Your task to perform on an android device: change the clock display to show seconds Image 0: 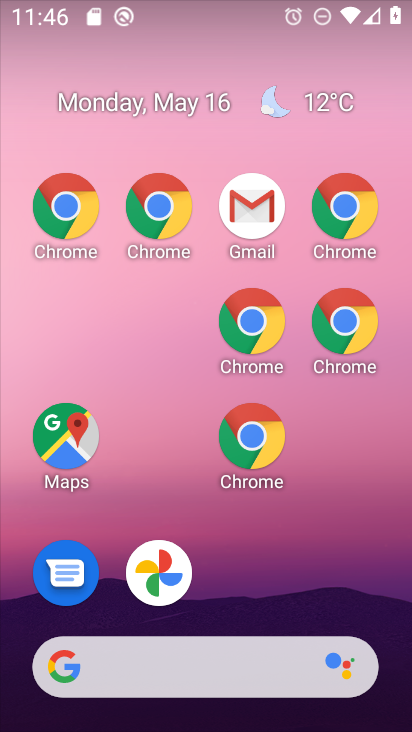
Step 0: drag from (328, 635) to (122, 209)
Your task to perform on an android device: change the clock display to show seconds Image 1: 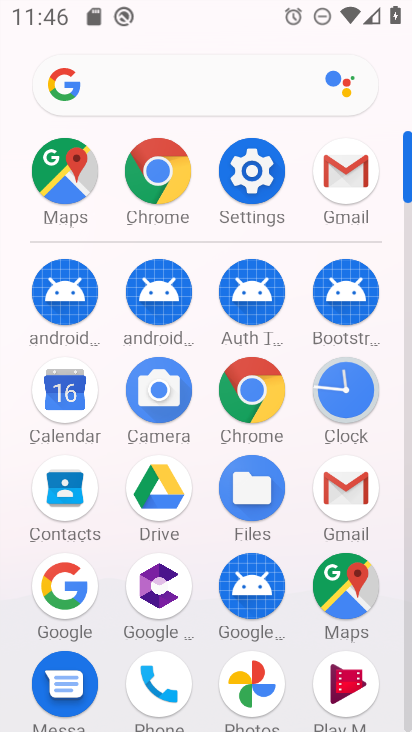
Step 1: click (353, 406)
Your task to perform on an android device: change the clock display to show seconds Image 2: 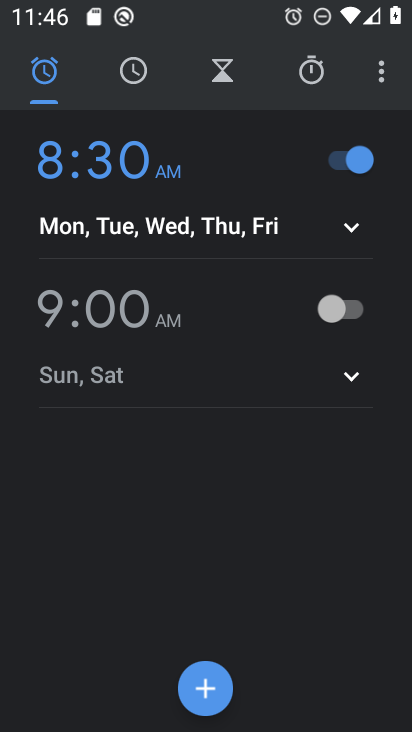
Step 2: click (371, 78)
Your task to perform on an android device: change the clock display to show seconds Image 3: 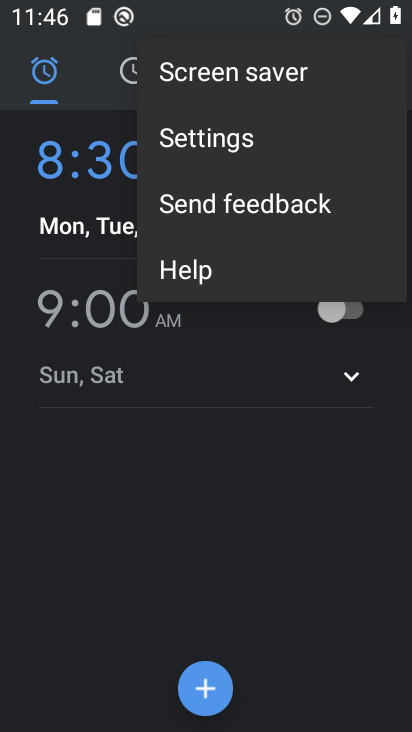
Step 3: click (209, 141)
Your task to perform on an android device: change the clock display to show seconds Image 4: 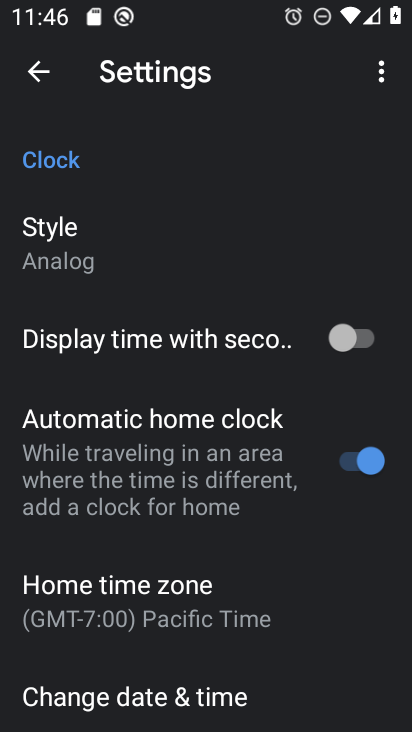
Step 4: click (85, 241)
Your task to perform on an android device: change the clock display to show seconds Image 5: 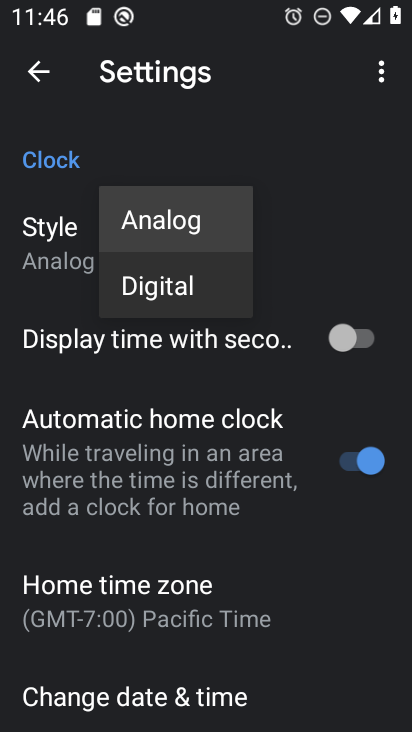
Step 5: click (160, 294)
Your task to perform on an android device: change the clock display to show seconds Image 6: 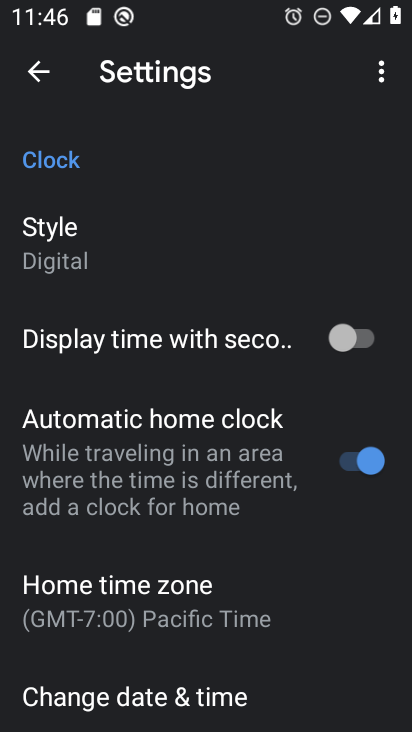
Step 6: click (126, 240)
Your task to perform on an android device: change the clock display to show seconds Image 7: 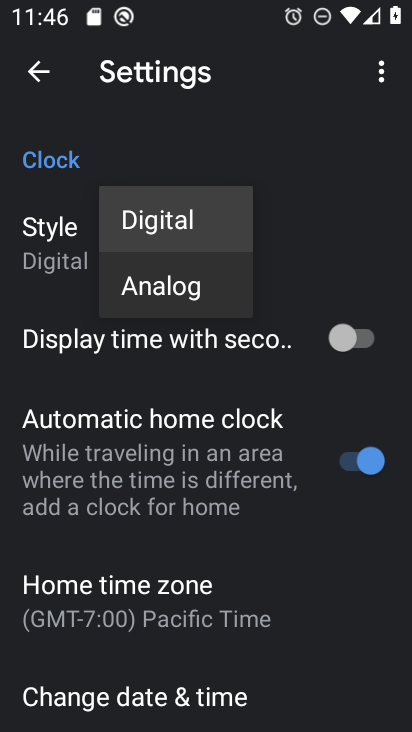
Step 7: click (163, 272)
Your task to perform on an android device: change the clock display to show seconds Image 8: 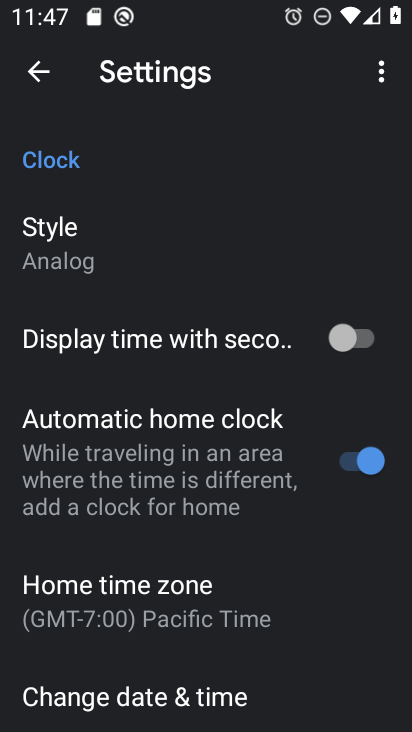
Step 8: task complete